Your task to perform on an android device: toggle javascript in the chrome app Image 0: 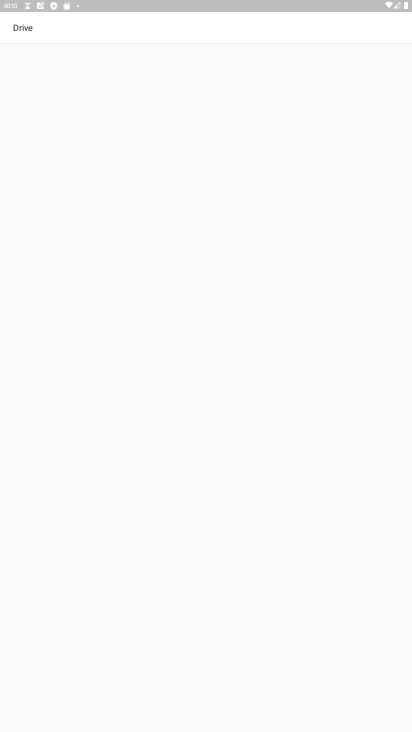
Step 0: press home button
Your task to perform on an android device: toggle javascript in the chrome app Image 1: 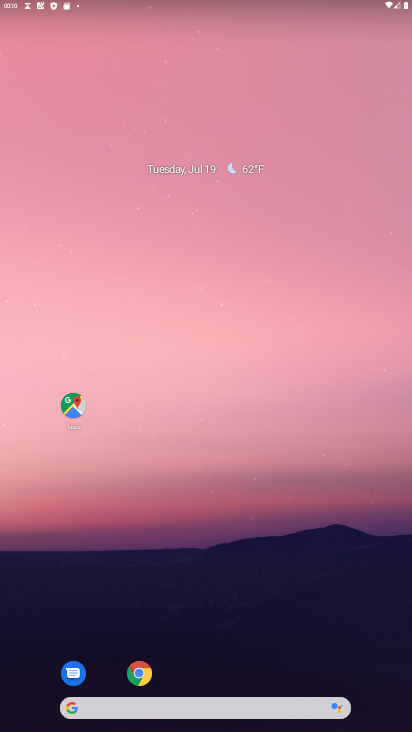
Step 1: drag from (262, 675) to (267, 294)
Your task to perform on an android device: toggle javascript in the chrome app Image 2: 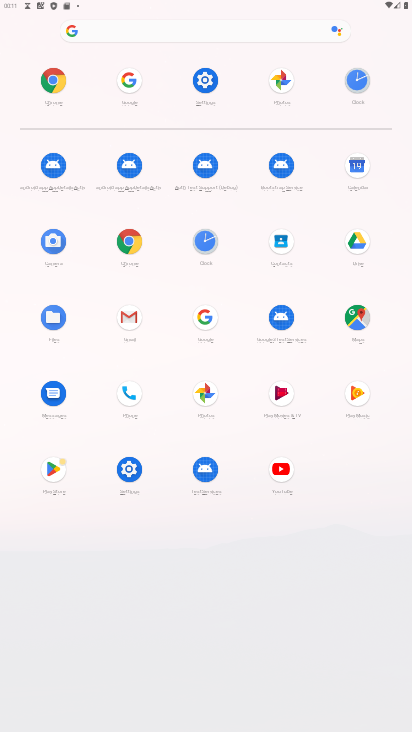
Step 2: click (60, 76)
Your task to perform on an android device: toggle javascript in the chrome app Image 3: 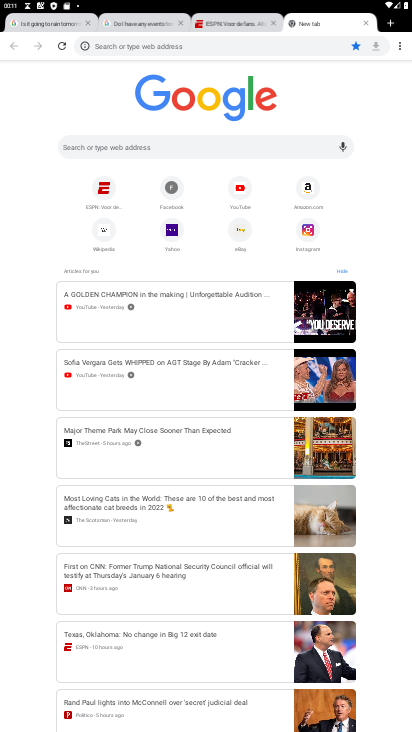
Step 3: click (399, 45)
Your task to perform on an android device: toggle javascript in the chrome app Image 4: 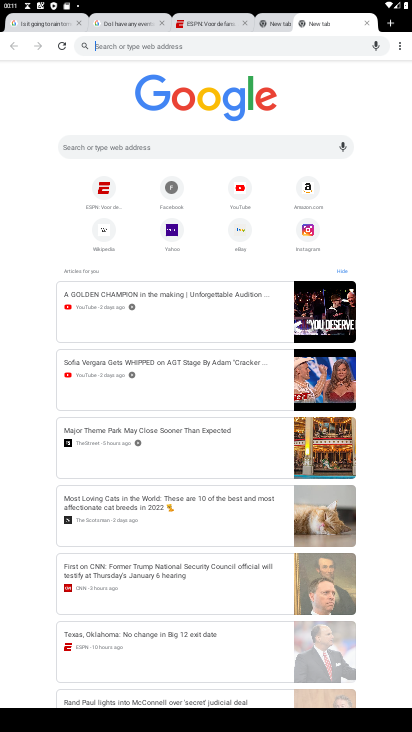
Step 4: click (404, 45)
Your task to perform on an android device: toggle javascript in the chrome app Image 5: 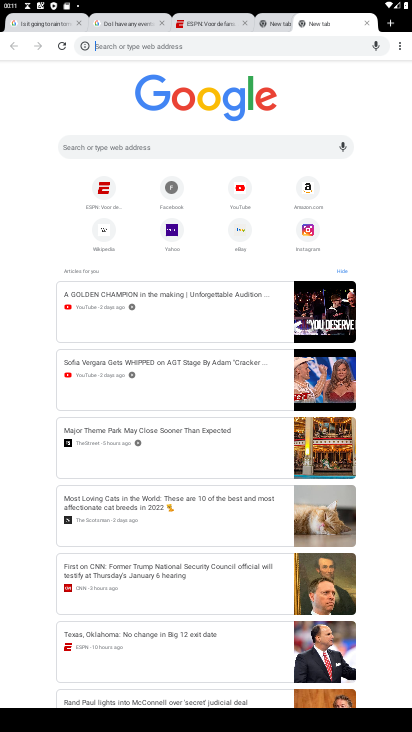
Step 5: click (405, 46)
Your task to perform on an android device: toggle javascript in the chrome app Image 6: 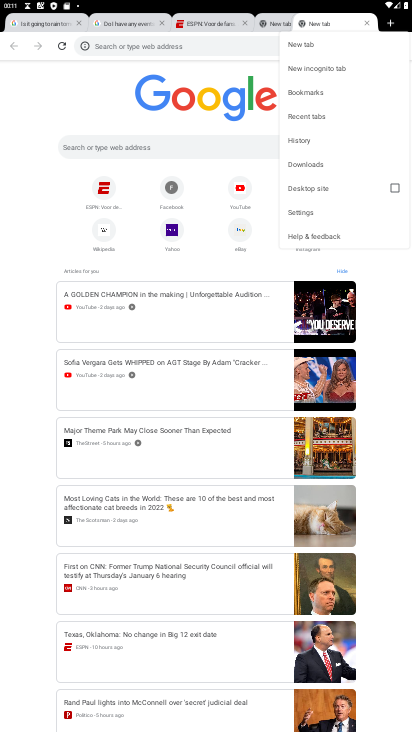
Step 6: click (318, 212)
Your task to perform on an android device: toggle javascript in the chrome app Image 7: 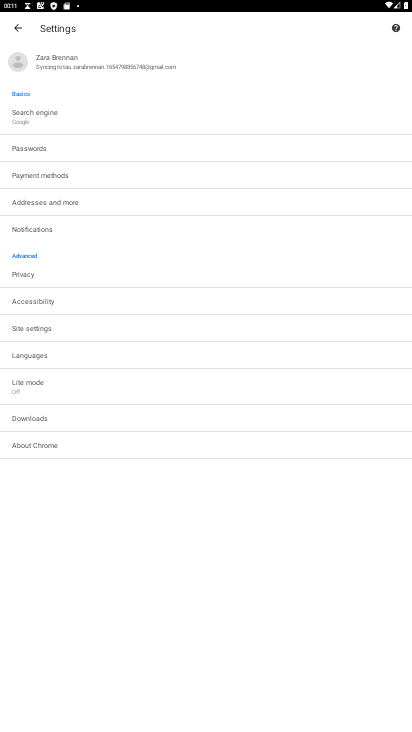
Step 7: click (59, 326)
Your task to perform on an android device: toggle javascript in the chrome app Image 8: 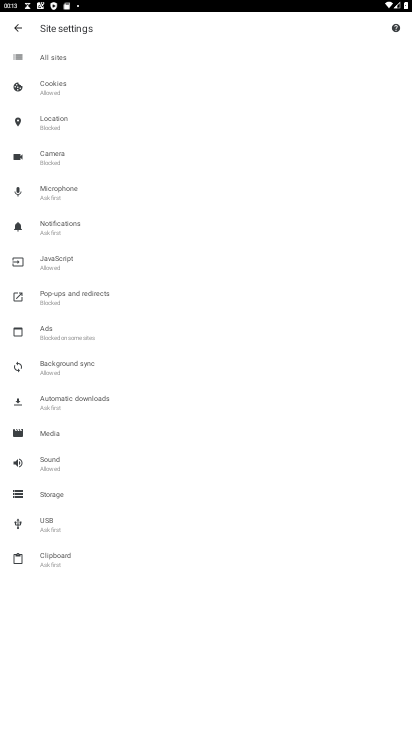
Step 8: click (72, 261)
Your task to perform on an android device: toggle javascript in the chrome app Image 9: 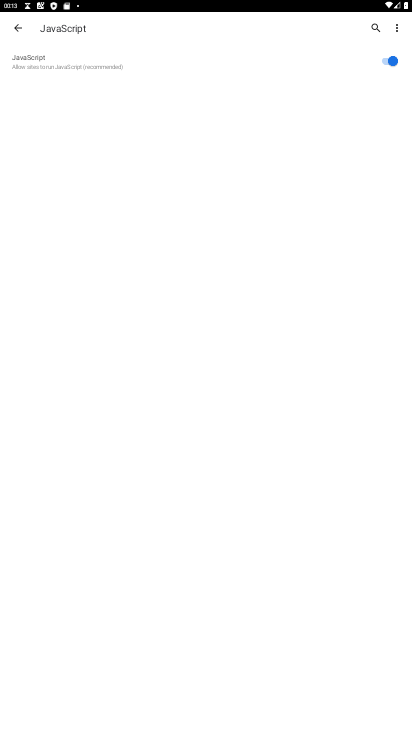
Step 9: task complete